Your task to perform on an android device: Go to network settings Image 0: 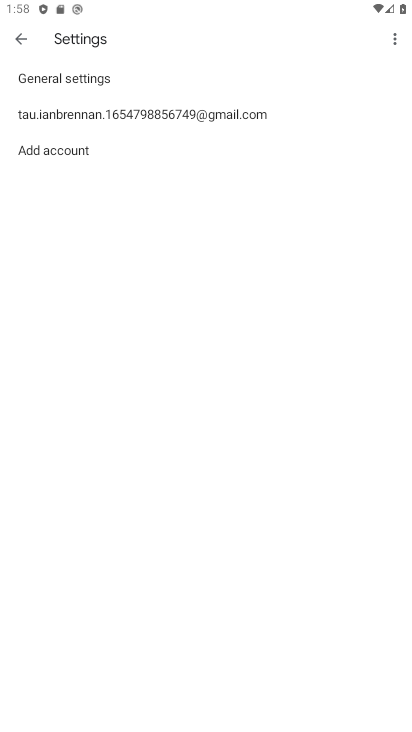
Step 0: press home button
Your task to perform on an android device: Go to network settings Image 1: 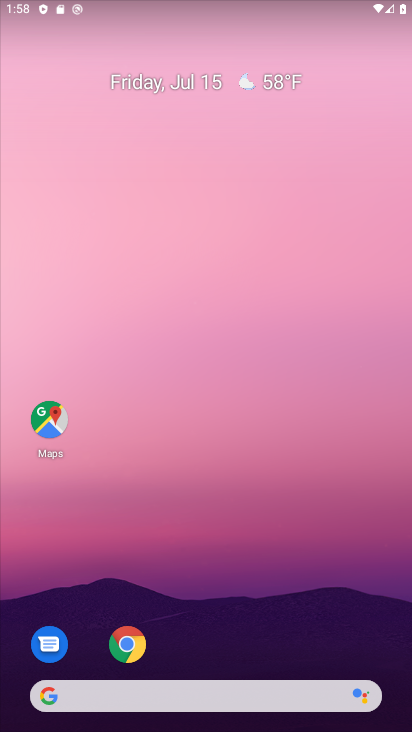
Step 1: drag from (320, 610) to (251, 129)
Your task to perform on an android device: Go to network settings Image 2: 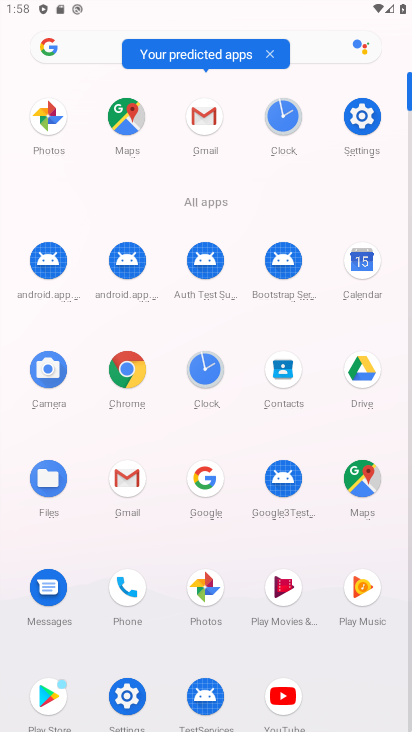
Step 2: click (355, 103)
Your task to perform on an android device: Go to network settings Image 3: 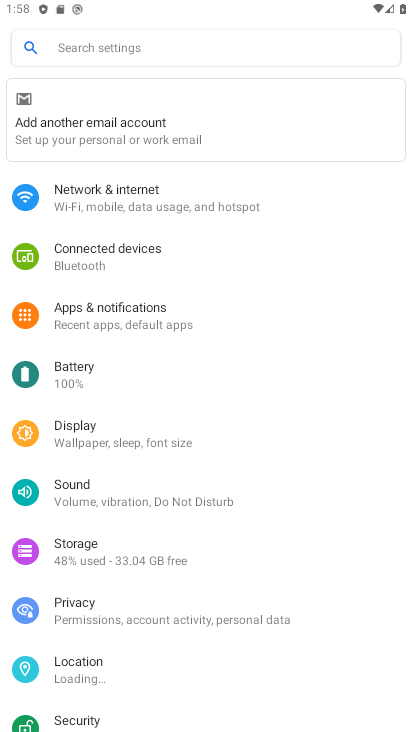
Step 3: click (251, 187)
Your task to perform on an android device: Go to network settings Image 4: 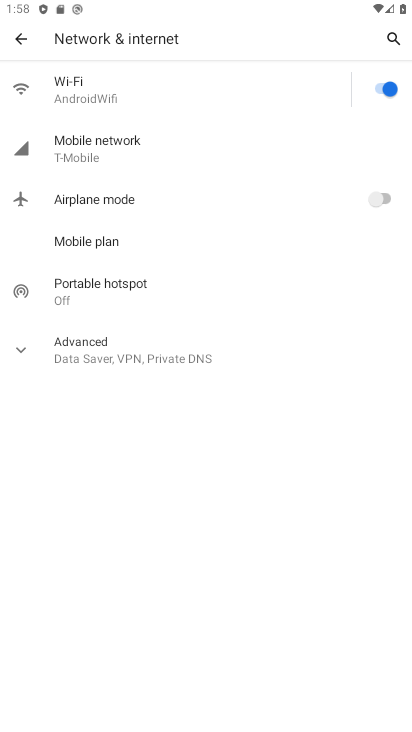
Step 4: task complete